Your task to perform on an android device: Go to Yahoo.com Image 0: 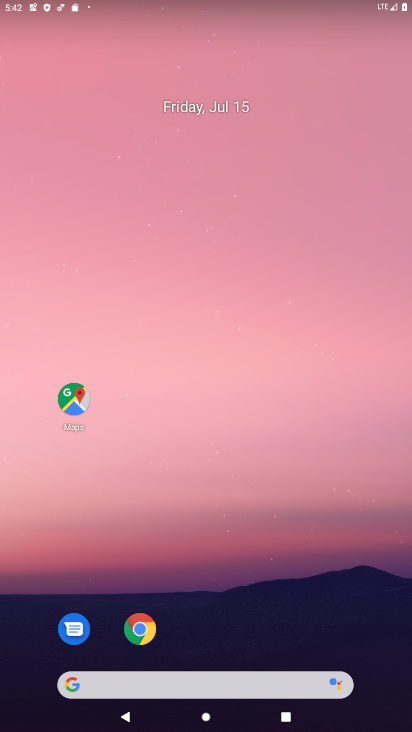
Step 0: press home button
Your task to perform on an android device: Go to Yahoo.com Image 1: 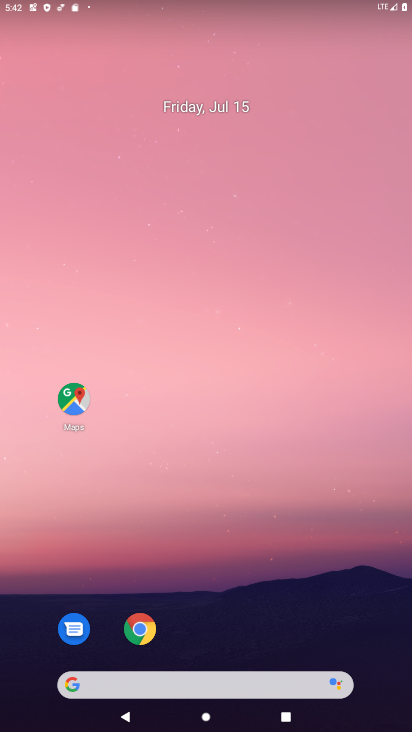
Step 1: press home button
Your task to perform on an android device: Go to Yahoo.com Image 2: 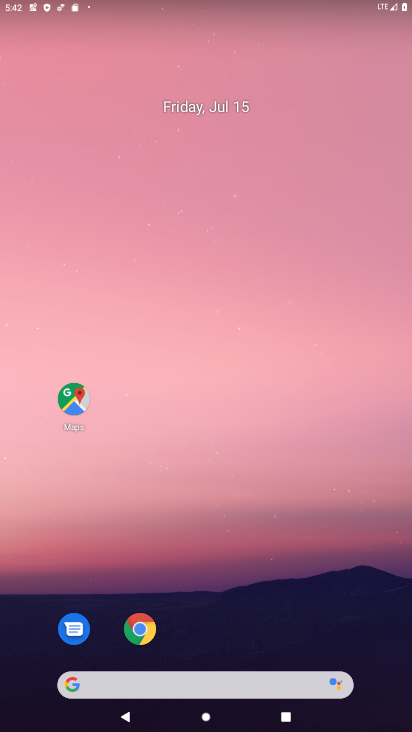
Step 2: click (67, 686)
Your task to perform on an android device: Go to Yahoo.com Image 3: 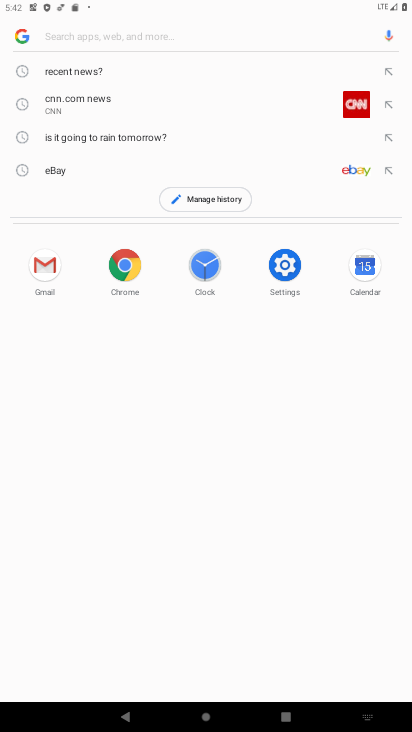
Step 3: type "Yahoo.com"
Your task to perform on an android device: Go to Yahoo.com Image 4: 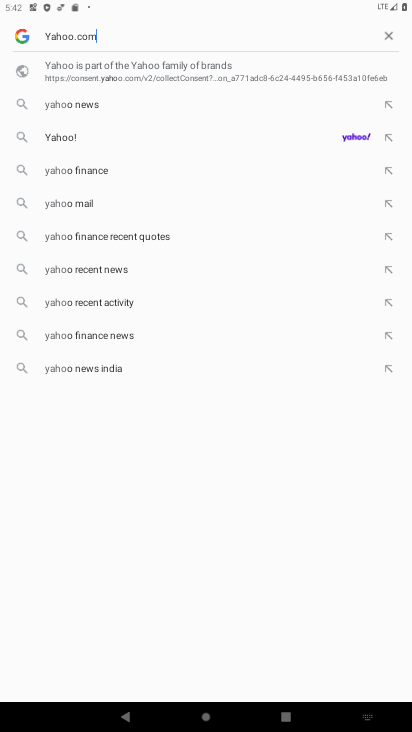
Step 4: press enter
Your task to perform on an android device: Go to Yahoo.com Image 5: 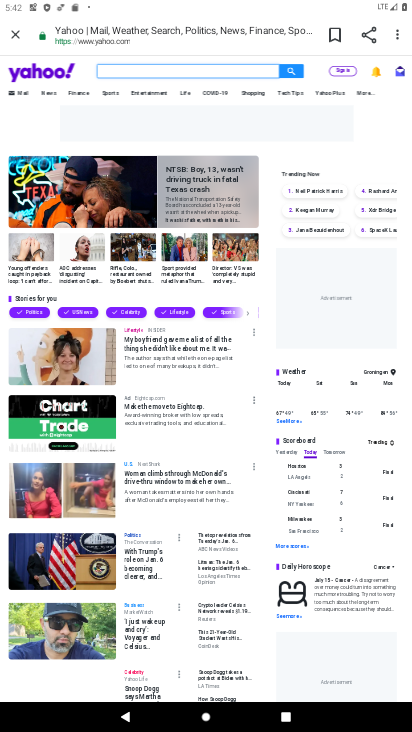
Step 5: task complete